Your task to perform on an android device: Open network settings Image 0: 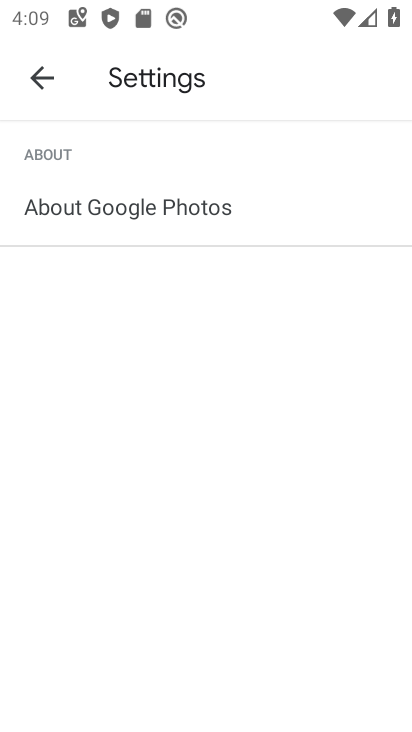
Step 0: press back button
Your task to perform on an android device: Open network settings Image 1: 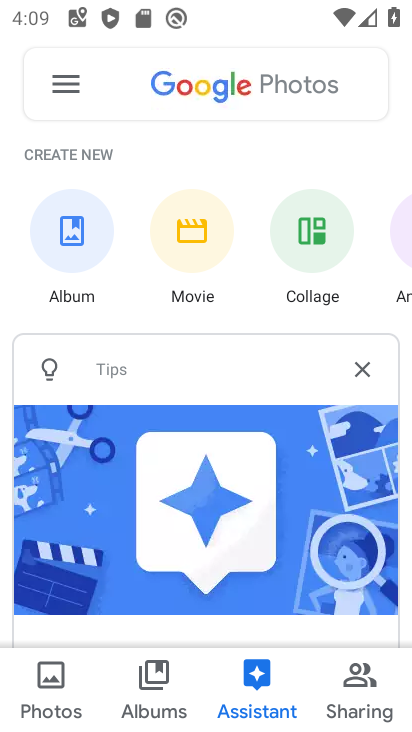
Step 1: press back button
Your task to perform on an android device: Open network settings Image 2: 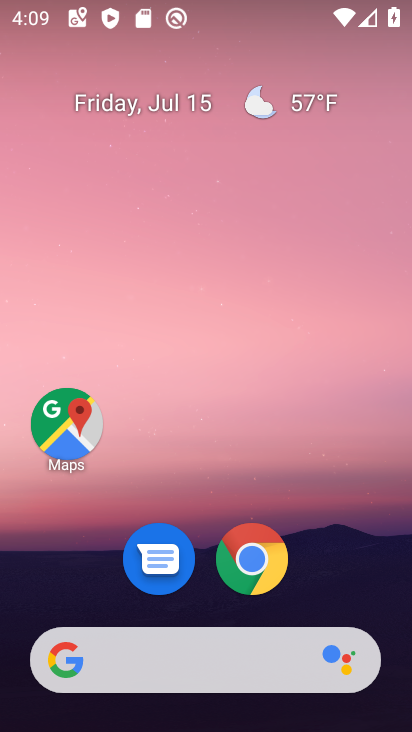
Step 2: drag from (107, 583) to (223, 56)
Your task to perform on an android device: Open network settings Image 3: 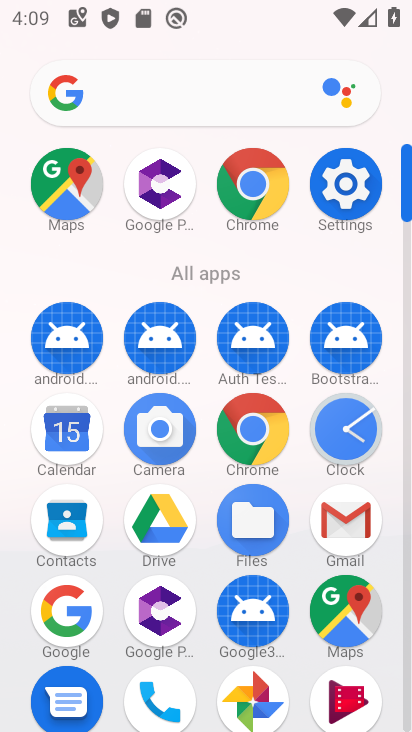
Step 3: click (336, 181)
Your task to perform on an android device: Open network settings Image 4: 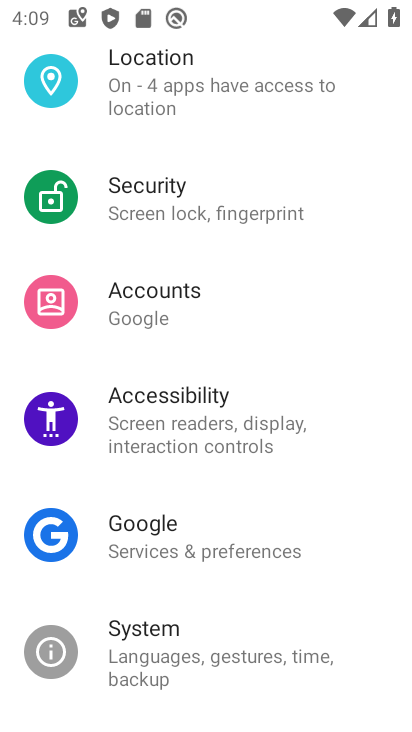
Step 4: drag from (202, 166) to (238, 707)
Your task to perform on an android device: Open network settings Image 5: 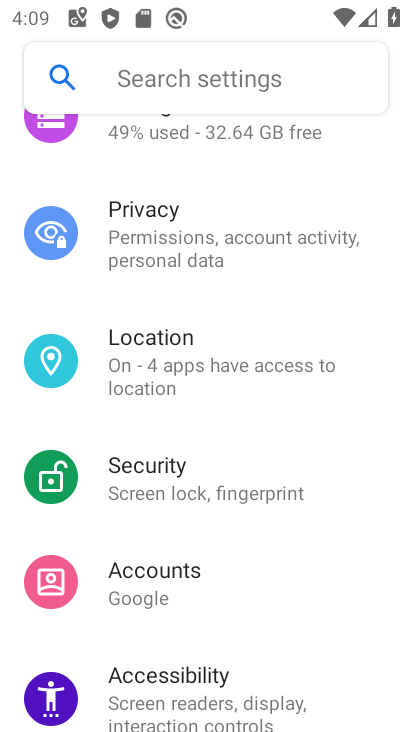
Step 5: drag from (186, 312) to (174, 706)
Your task to perform on an android device: Open network settings Image 6: 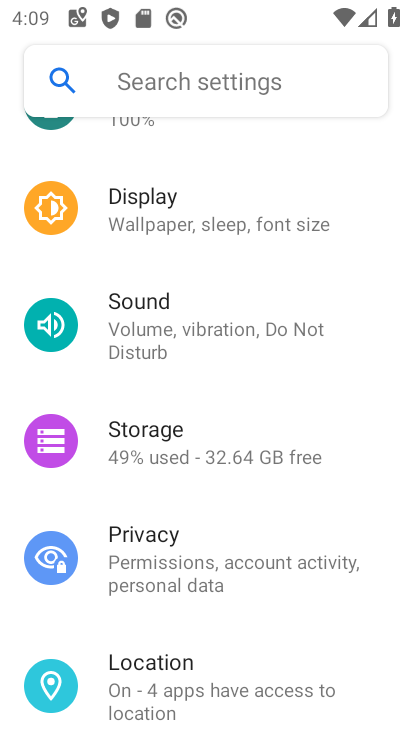
Step 6: drag from (174, 236) to (210, 704)
Your task to perform on an android device: Open network settings Image 7: 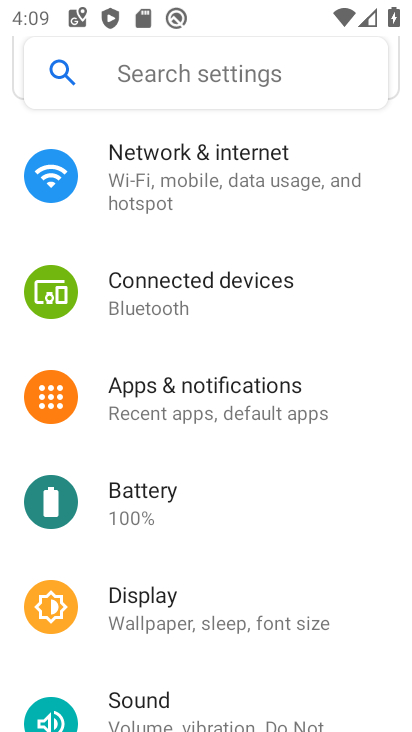
Step 7: click (181, 184)
Your task to perform on an android device: Open network settings Image 8: 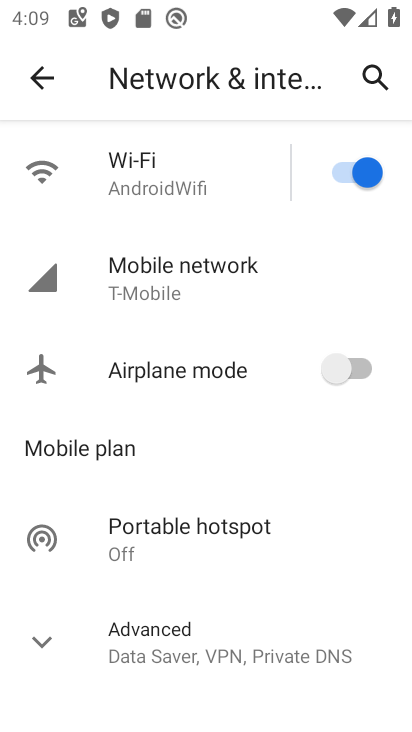
Step 8: task complete